Your task to perform on an android device: Add "macbook pro 15 inch" to the cart on ebay, then select checkout. Image 0: 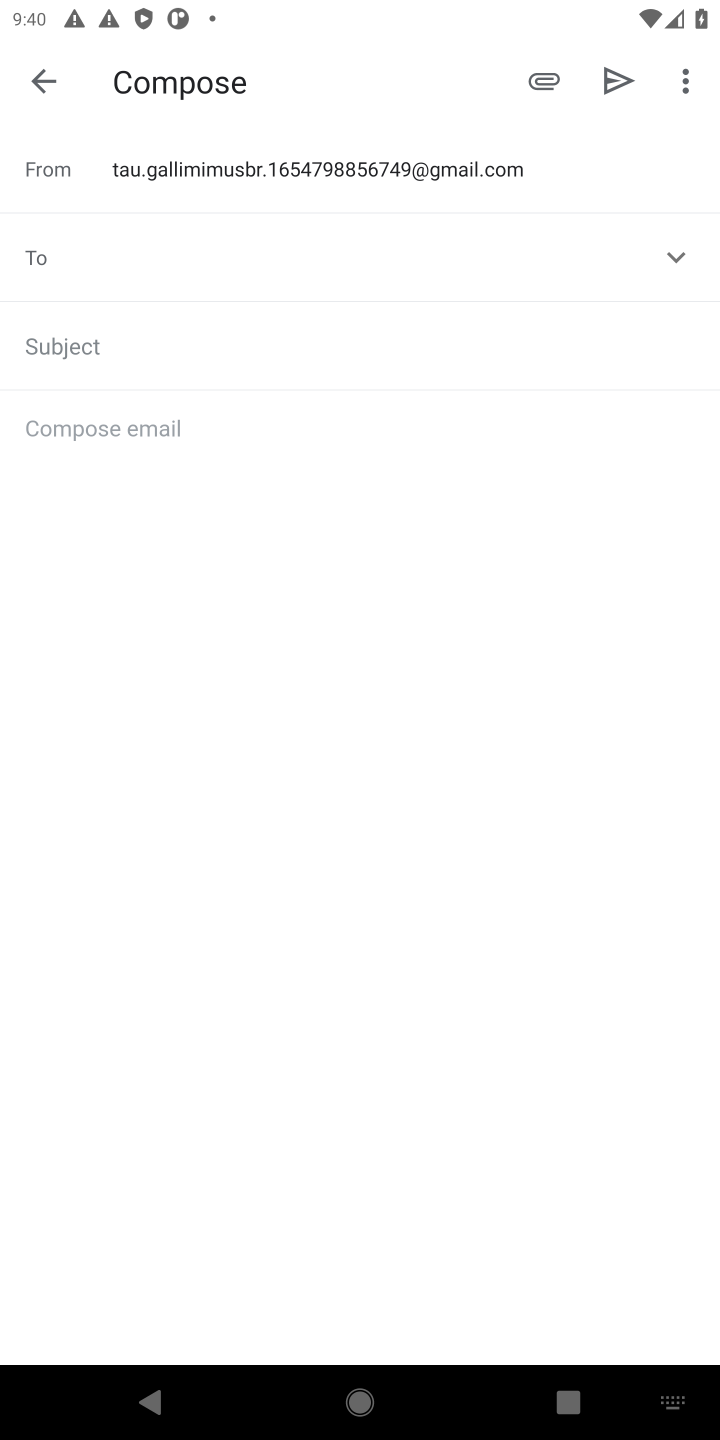
Step 0: press home button
Your task to perform on an android device: Add "macbook pro 15 inch" to the cart on ebay, then select checkout. Image 1: 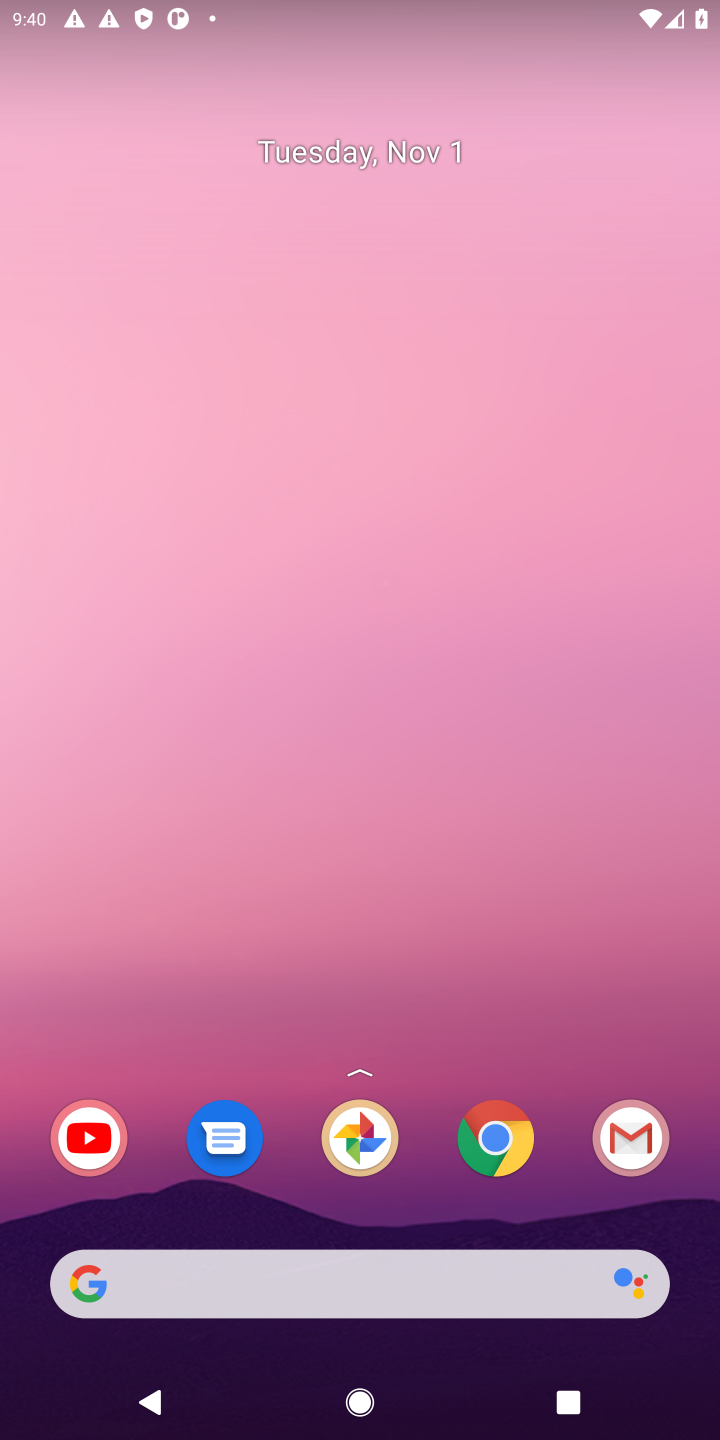
Step 1: click (491, 1156)
Your task to perform on an android device: Add "macbook pro 15 inch" to the cart on ebay, then select checkout. Image 2: 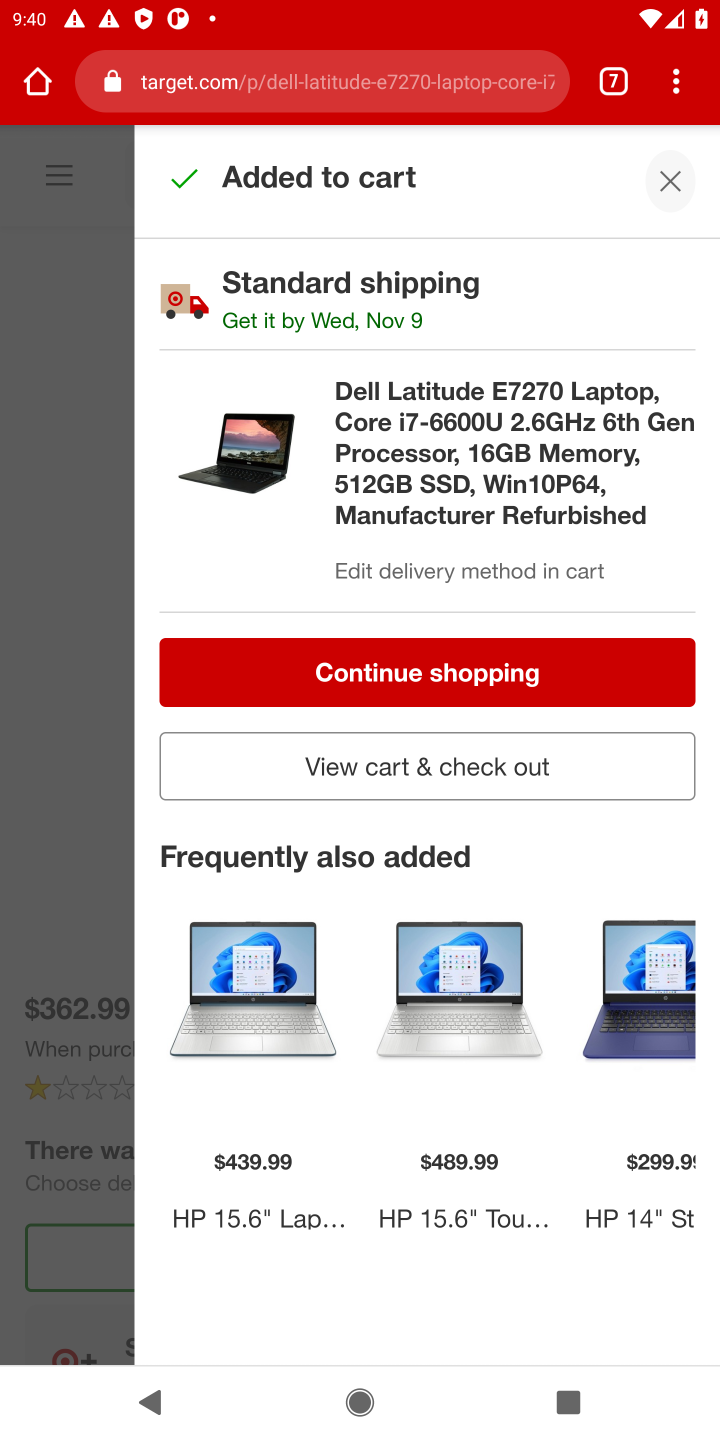
Step 2: drag from (676, 97) to (371, 154)
Your task to perform on an android device: Add "macbook pro 15 inch" to the cart on ebay, then select checkout. Image 3: 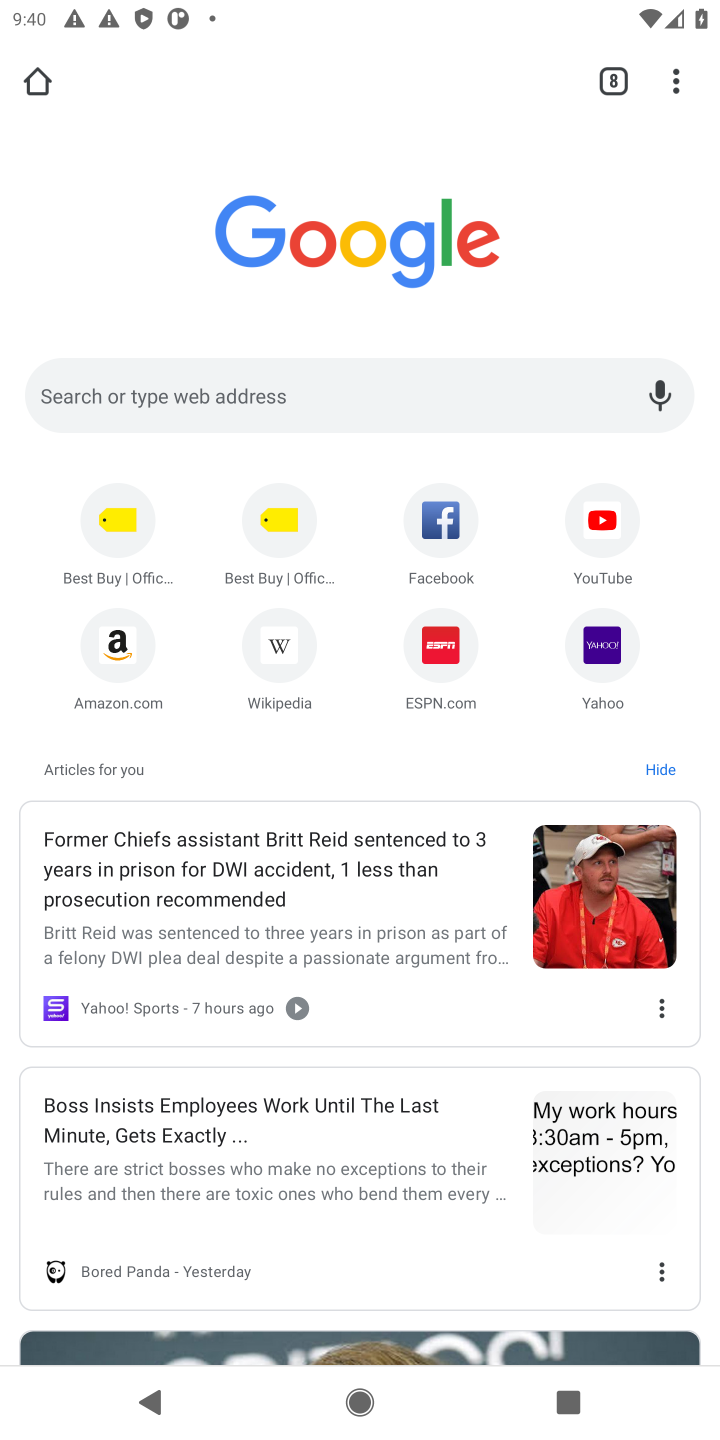
Step 3: click (273, 421)
Your task to perform on an android device: Add "macbook pro 15 inch" to the cart on ebay, then select checkout. Image 4: 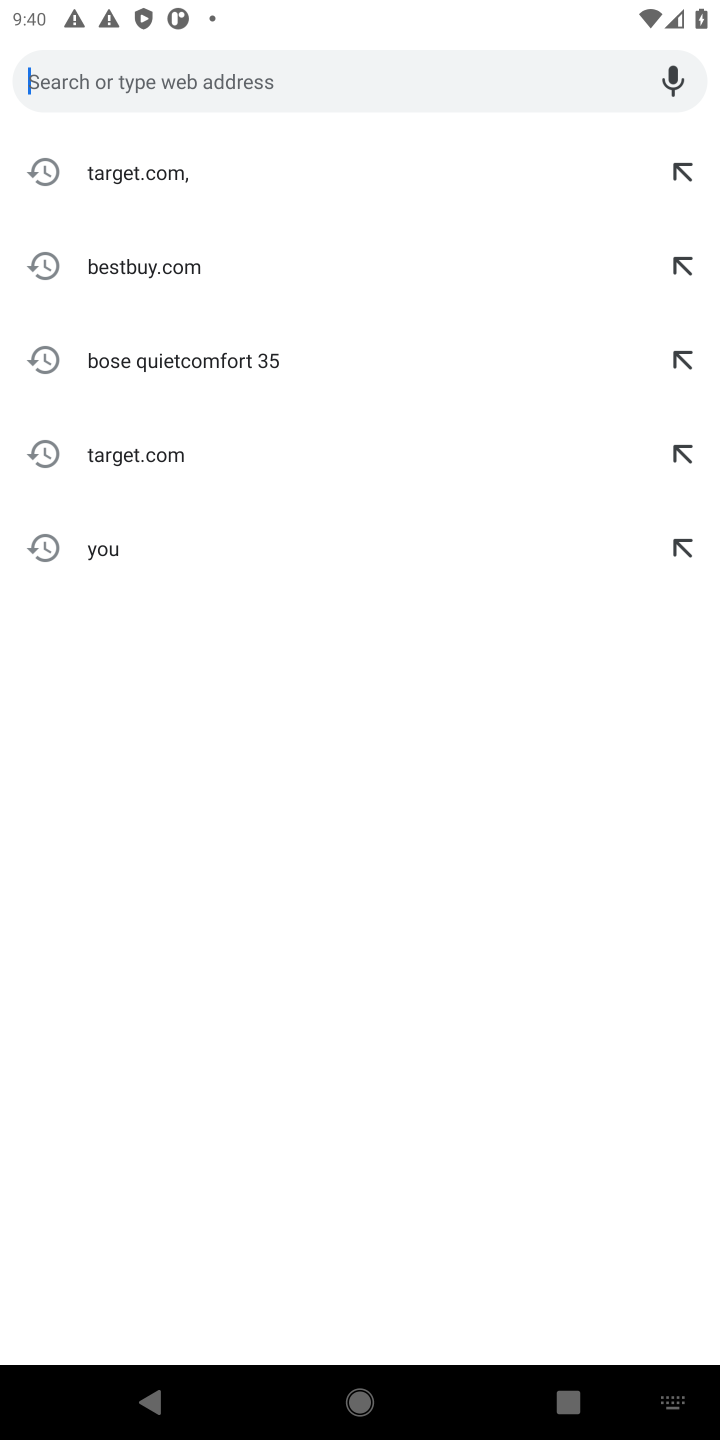
Step 4: type "macbook pro 15 inch"
Your task to perform on an android device: Add "macbook pro 15 inch" to the cart on ebay, then select checkout. Image 5: 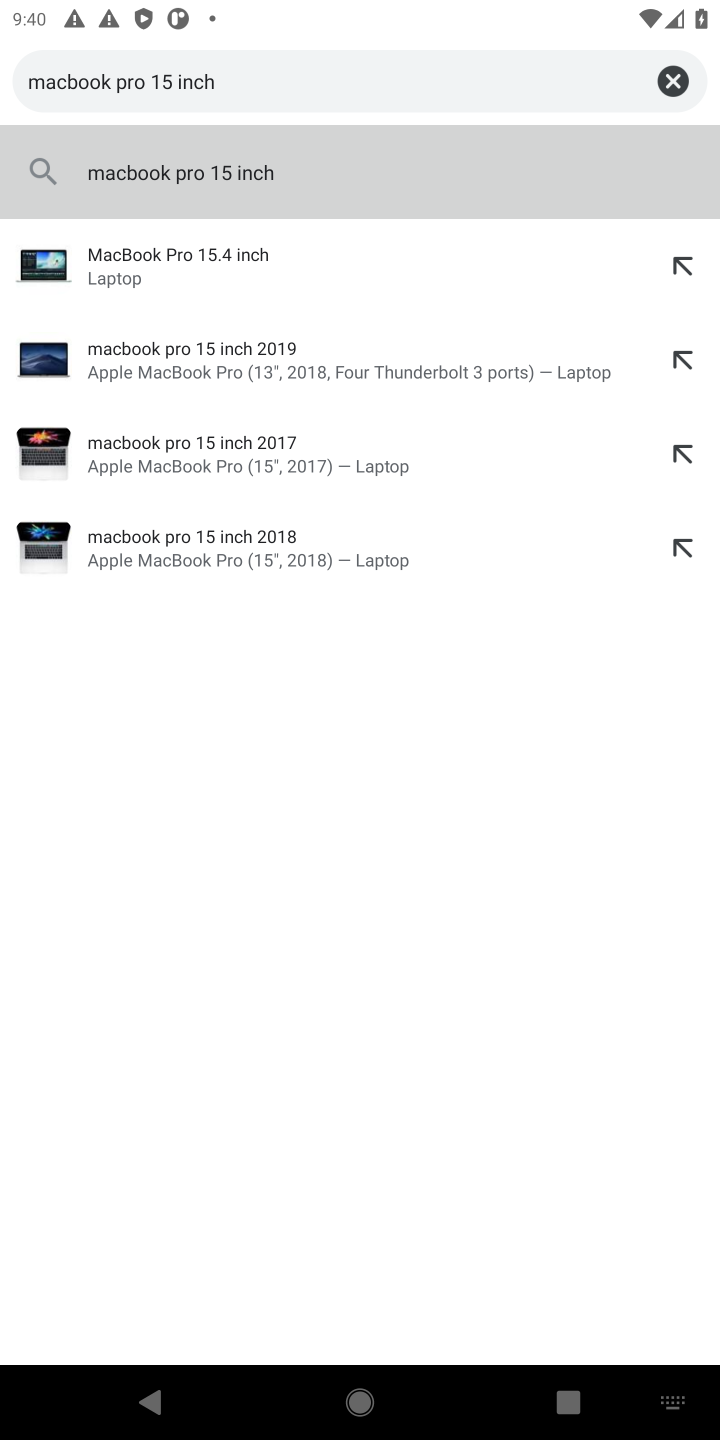
Step 5: type ""
Your task to perform on an android device: Add "macbook pro 15 inch" to the cart on ebay, then select checkout. Image 6: 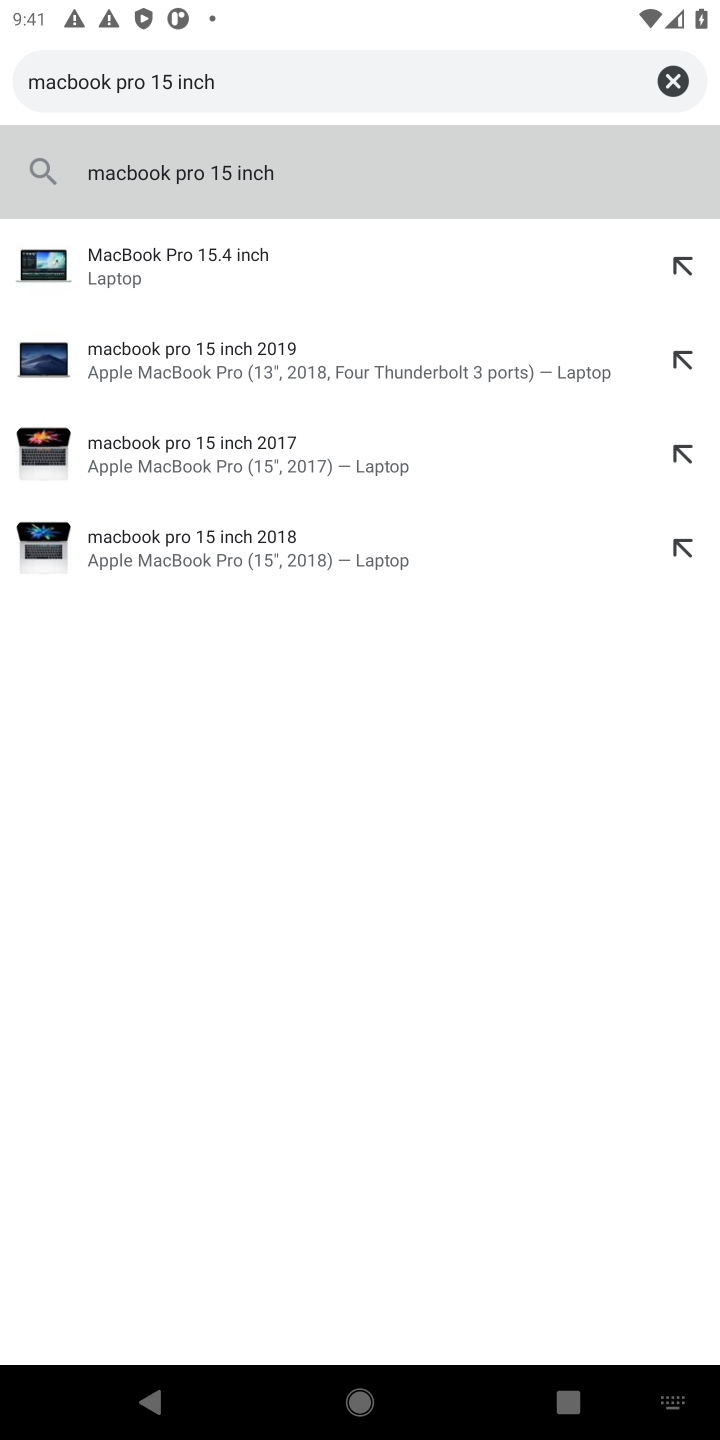
Step 6: click (184, 173)
Your task to perform on an android device: Add "macbook pro 15 inch" to the cart on ebay, then select checkout. Image 7: 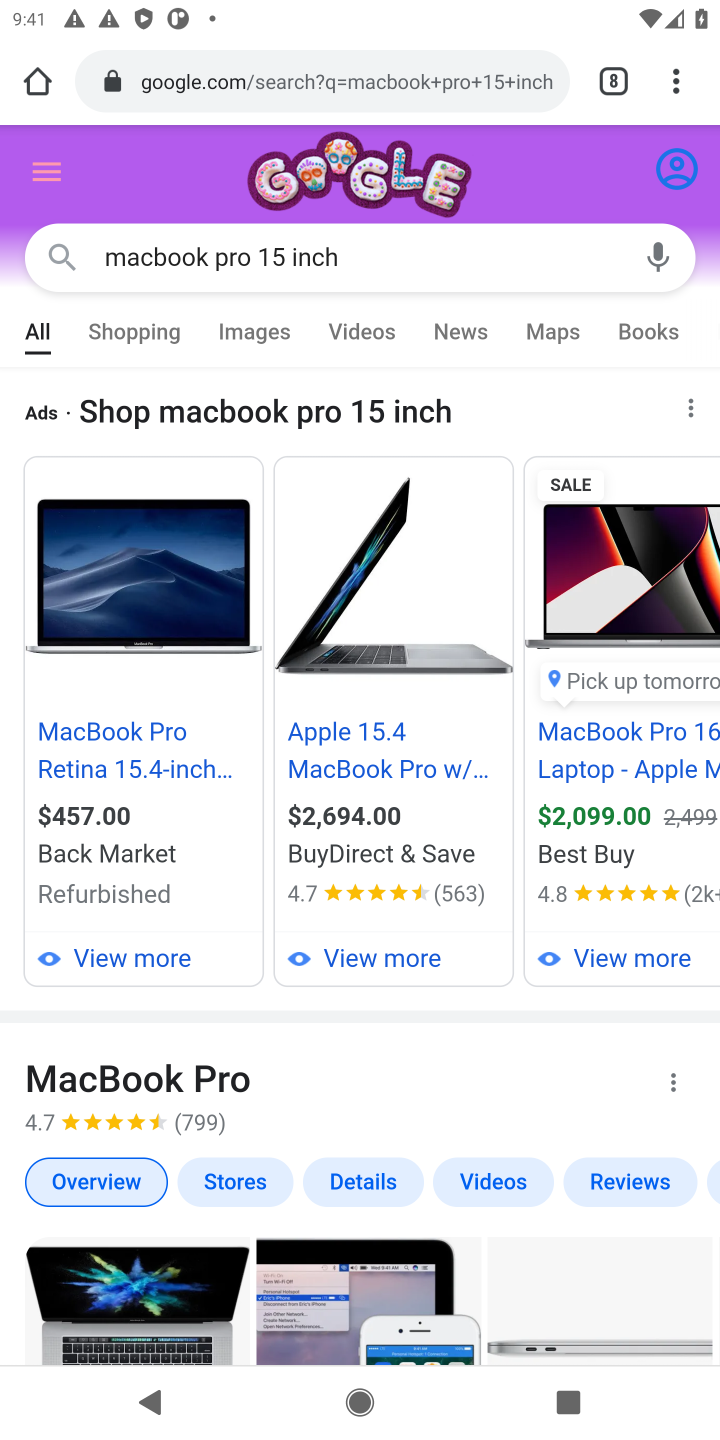
Step 7: drag from (300, 1083) to (304, 629)
Your task to perform on an android device: Add "macbook pro 15 inch" to the cart on ebay, then select checkout. Image 8: 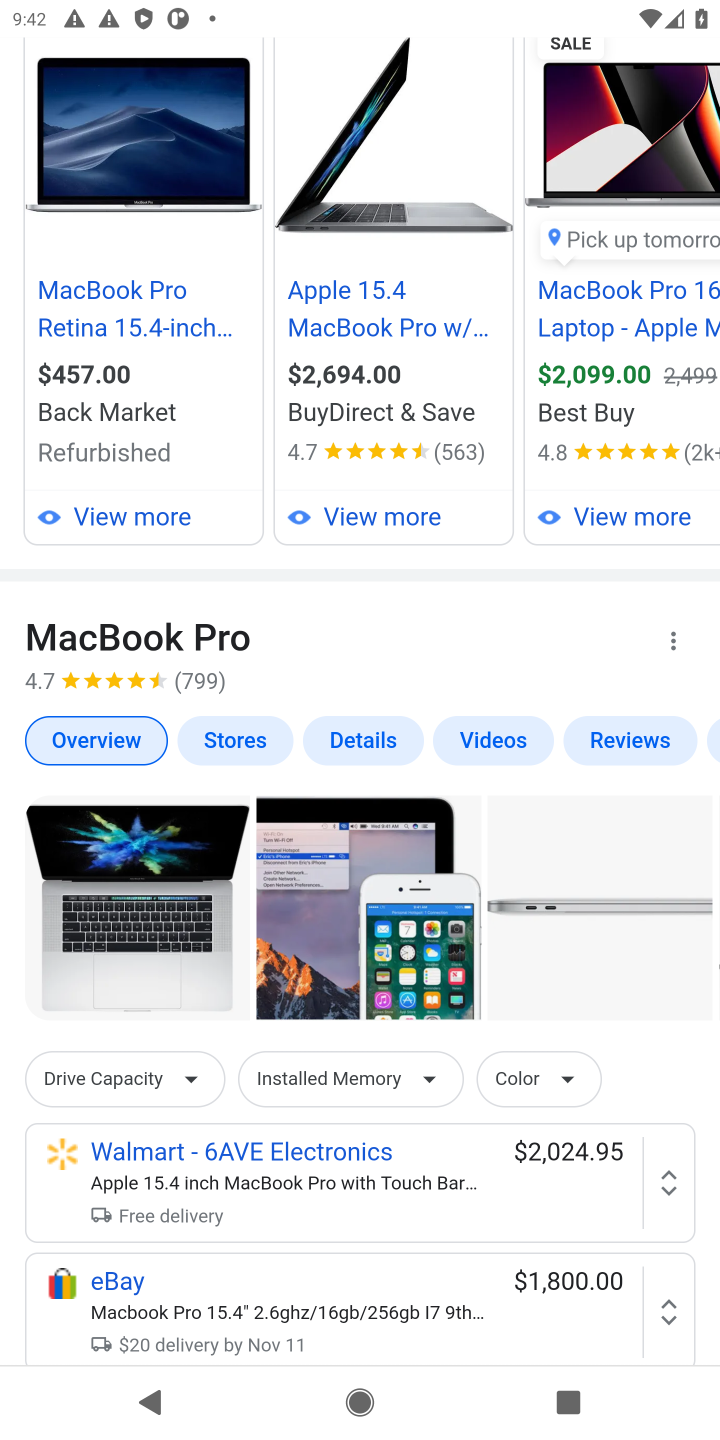
Step 8: click (116, 1280)
Your task to perform on an android device: Add "macbook pro 15 inch" to the cart on ebay, then select checkout. Image 9: 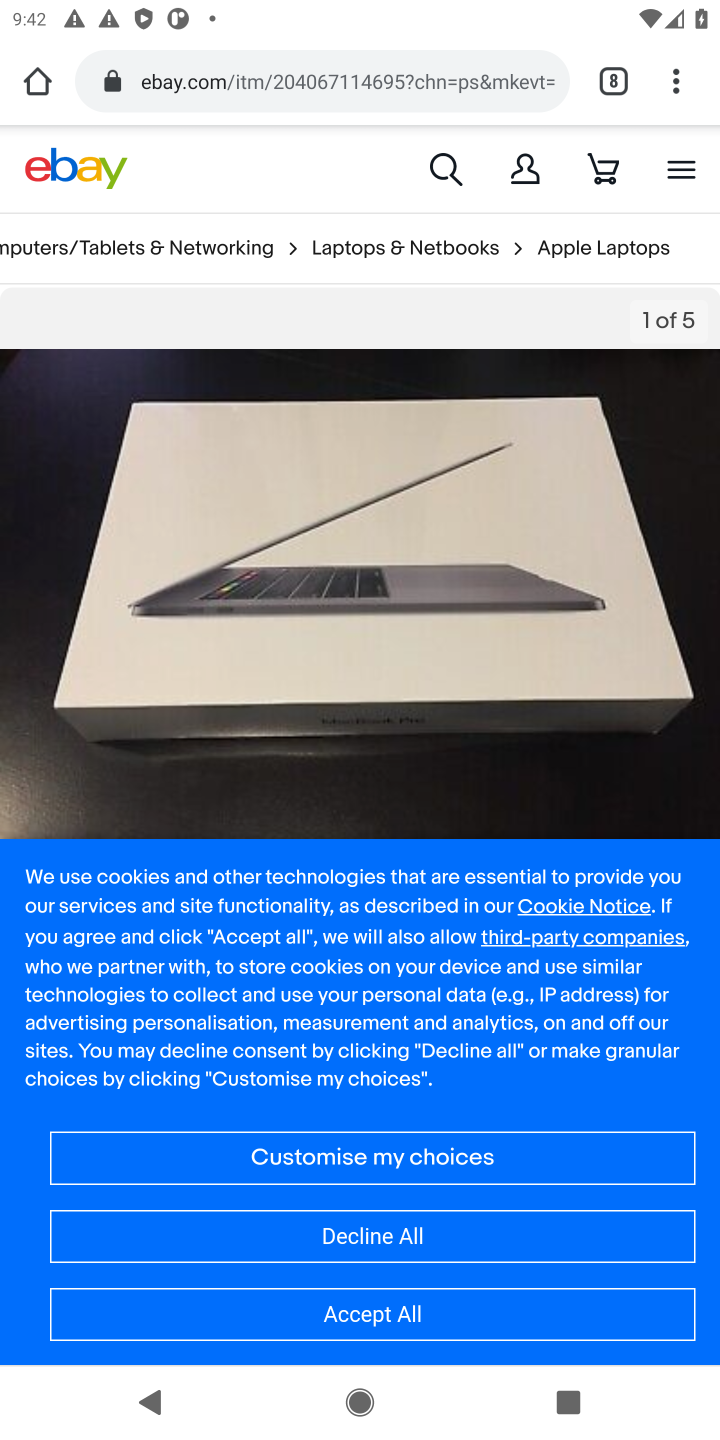
Step 9: click (401, 1306)
Your task to perform on an android device: Add "macbook pro 15 inch" to the cart on ebay, then select checkout. Image 10: 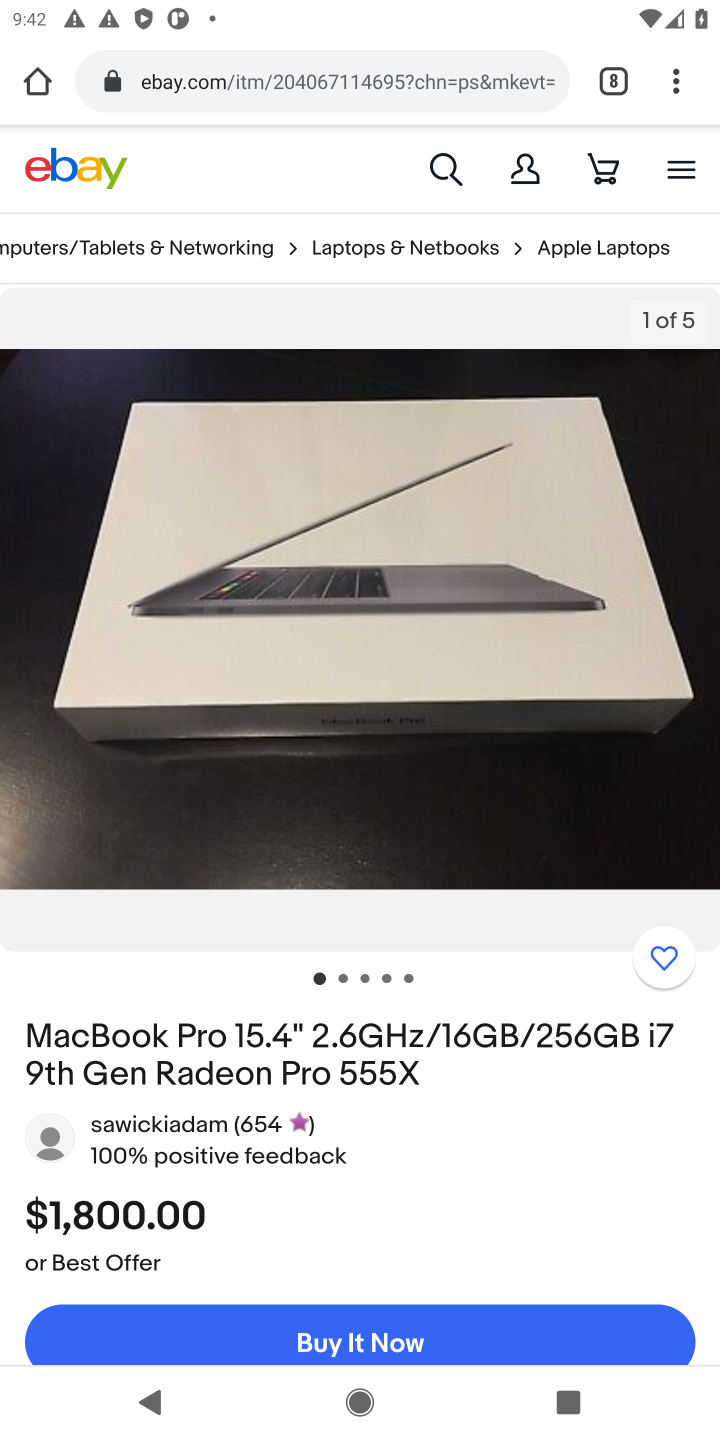
Step 10: drag from (405, 1265) to (346, 598)
Your task to perform on an android device: Add "macbook pro 15 inch" to the cart on ebay, then select checkout. Image 11: 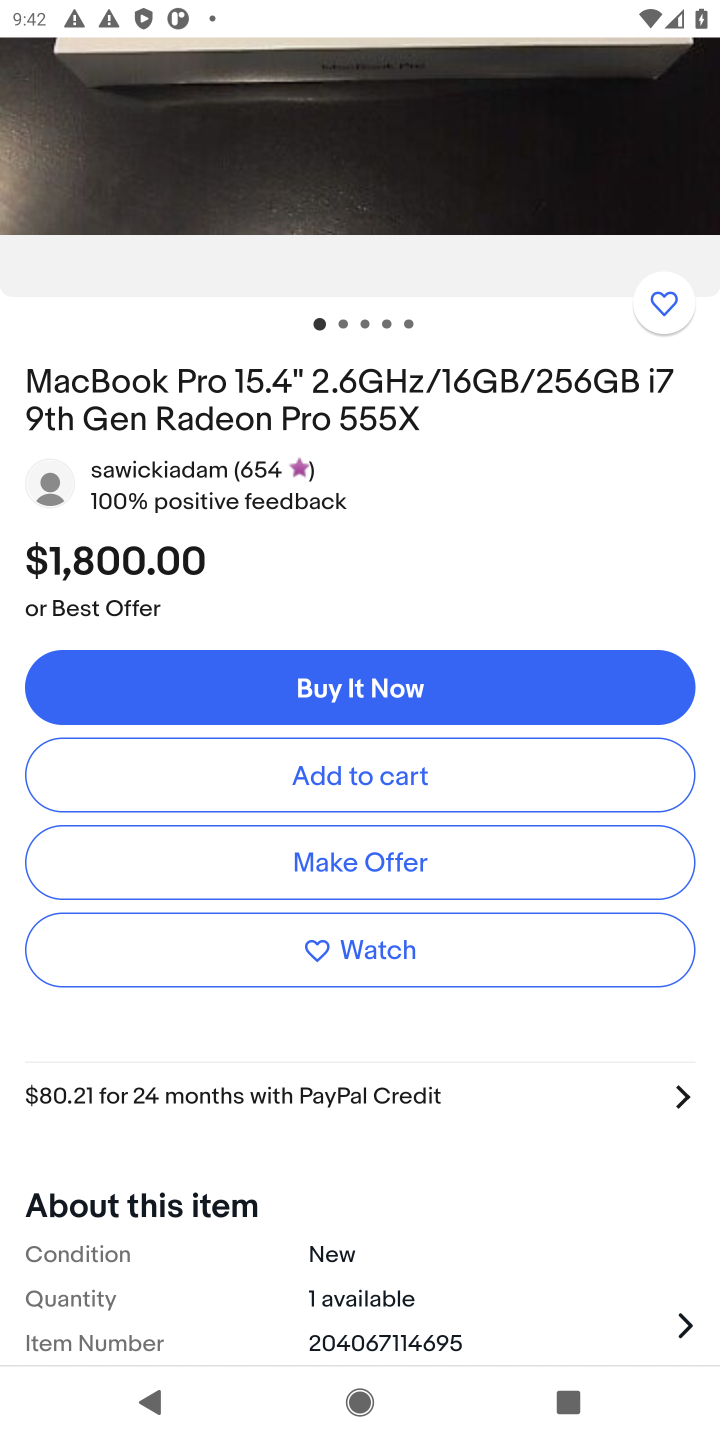
Step 11: click (352, 778)
Your task to perform on an android device: Add "macbook pro 15 inch" to the cart on ebay, then select checkout. Image 12: 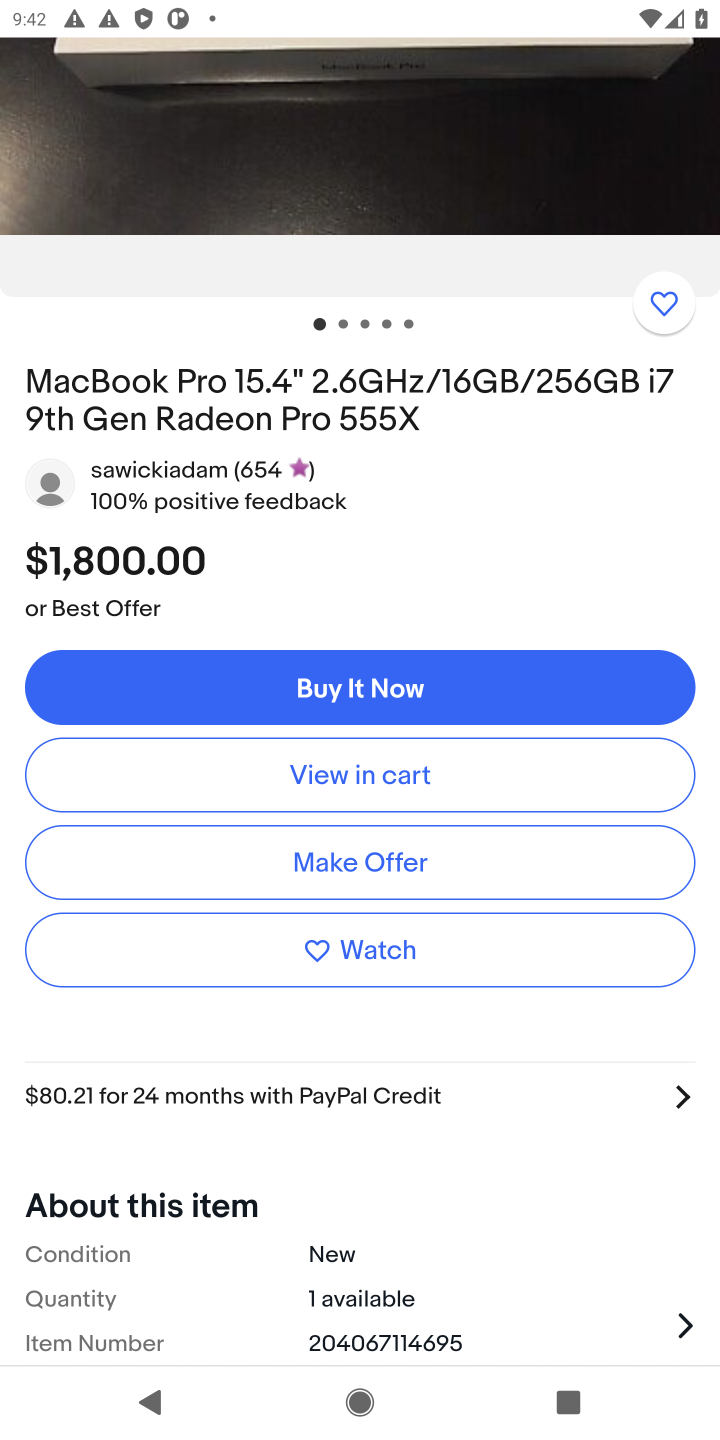
Step 12: task complete